Your task to perform on an android device: change the clock display to show seconds Image 0: 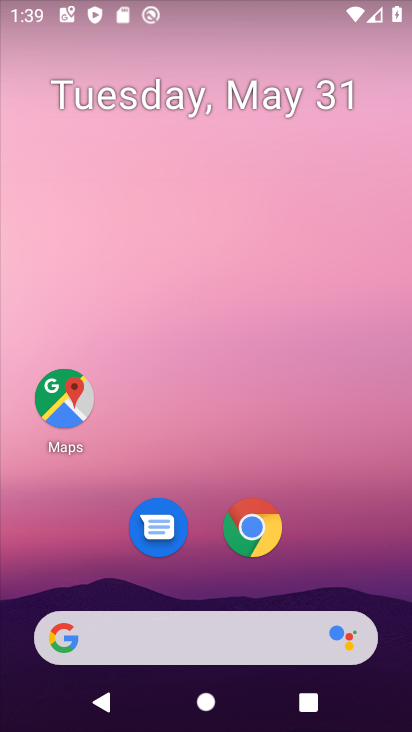
Step 0: drag from (337, 585) to (341, 116)
Your task to perform on an android device: change the clock display to show seconds Image 1: 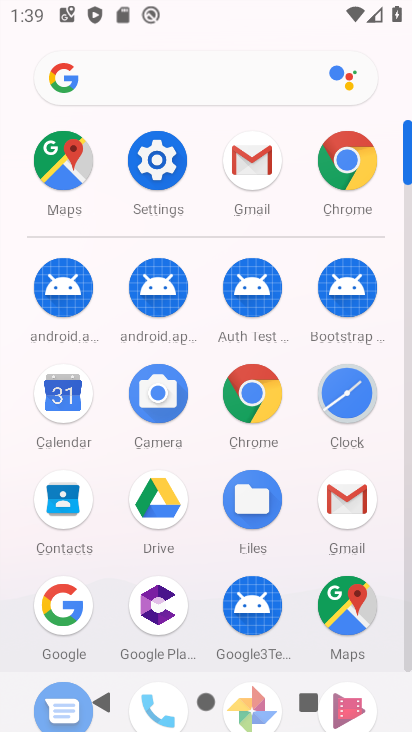
Step 1: click (358, 400)
Your task to perform on an android device: change the clock display to show seconds Image 2: 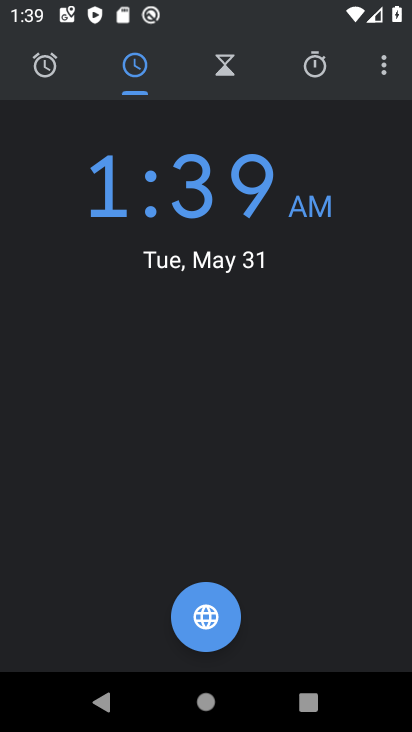
Step 2: click (388, 61)
Your task to perform on an android device: change the clock display to show seconds Image 3: 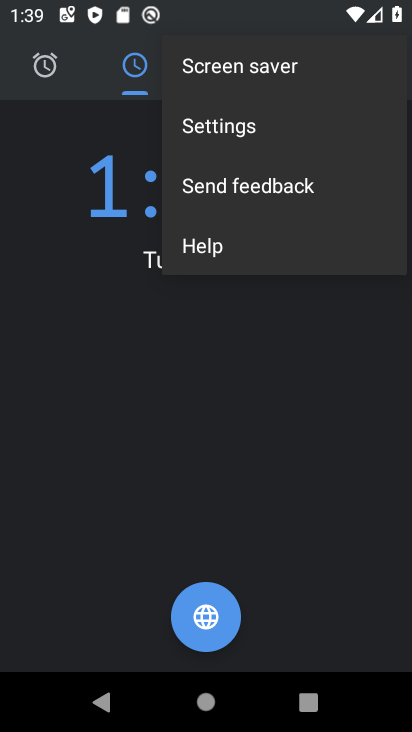
Step 3: click (233, 125)
Your task to perform on an android device: change the clock display to show seconds Image 4: 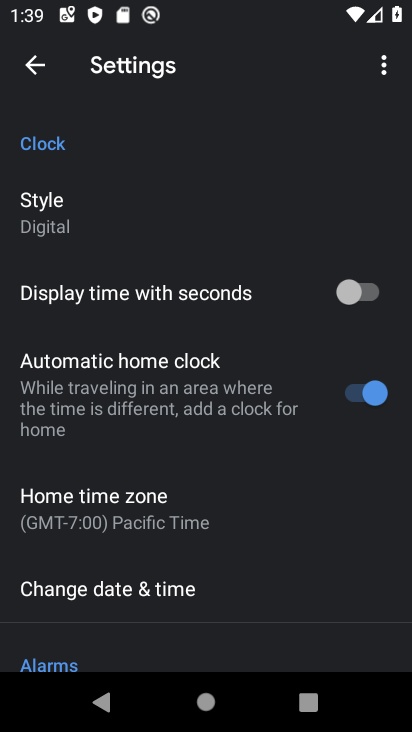
Step 4: click (56, 218)
Your task to perform on an android device: change the clock display to show seconds Image 5: 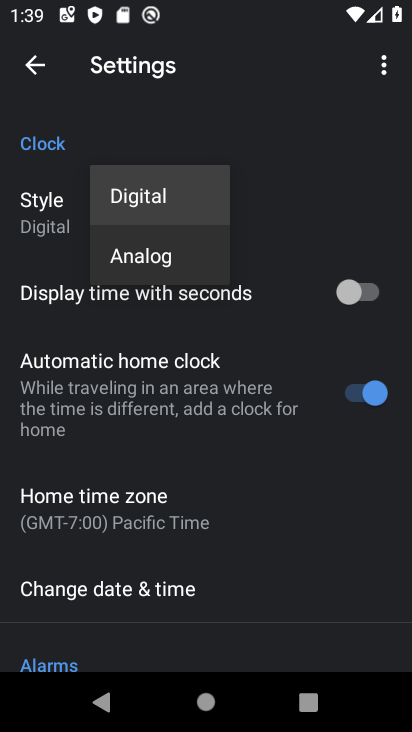
Step 5: click (306, 144)
Your task to perform on an android device: change the clock display to show seconds Image 6: 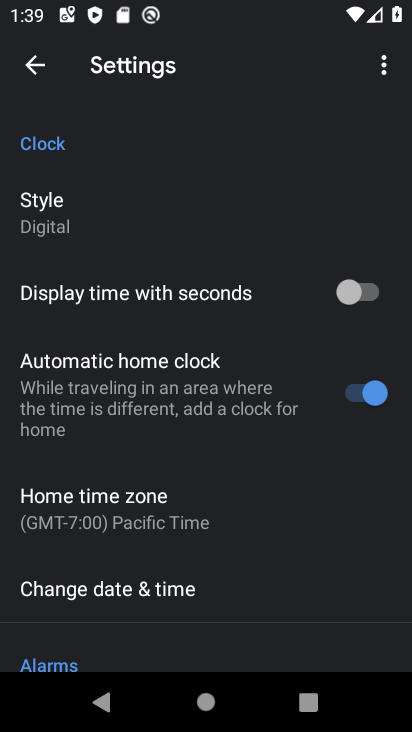
Step 6: click (366, 293)
Your task to perform on an android device: change the clock display to show seconds Image 7: 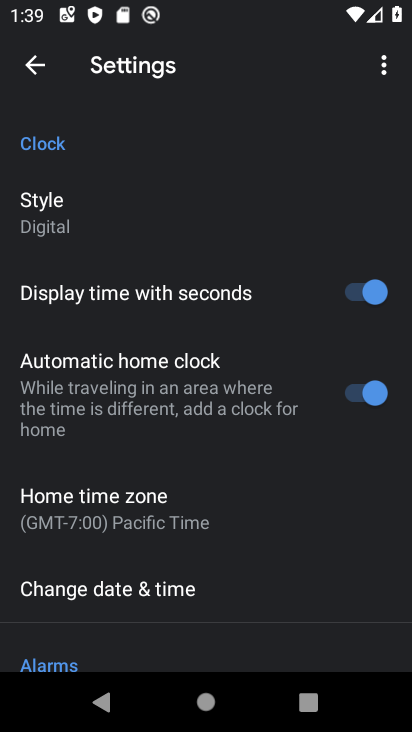
Step 7: task complete